Your task to perform on an android device: Go to internet settings Image 0: 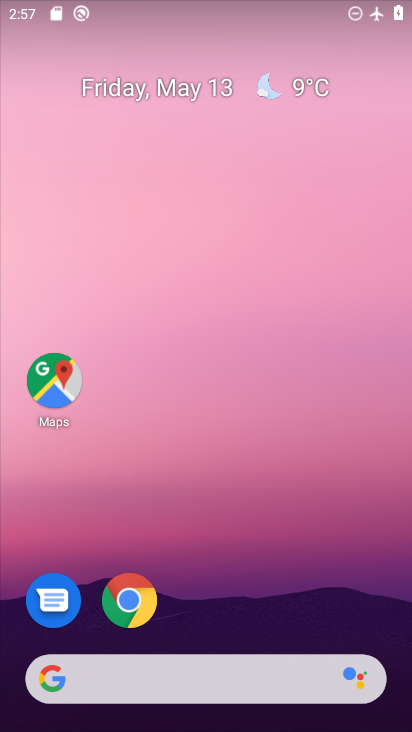
Step 0: drag from (265, 644) to (300, 317)
Your task to perform on an android device: Go to internet settings Image 1: 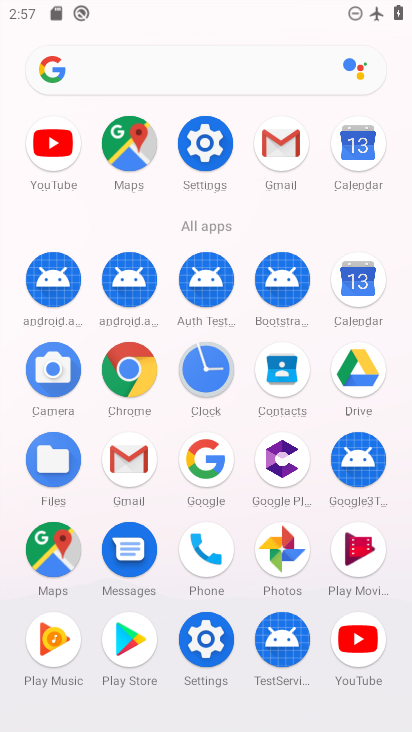
Step 1: drag from (264, 625) to (303, 233)
Your task to perform on an android device: Go to internet settings Image 2: 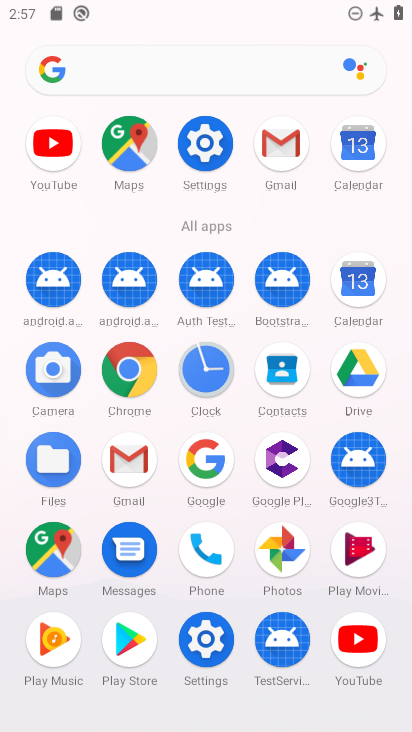
Step 2: click (199, 132)
Your task to perform on an android device: Go to internet settings Image 3: 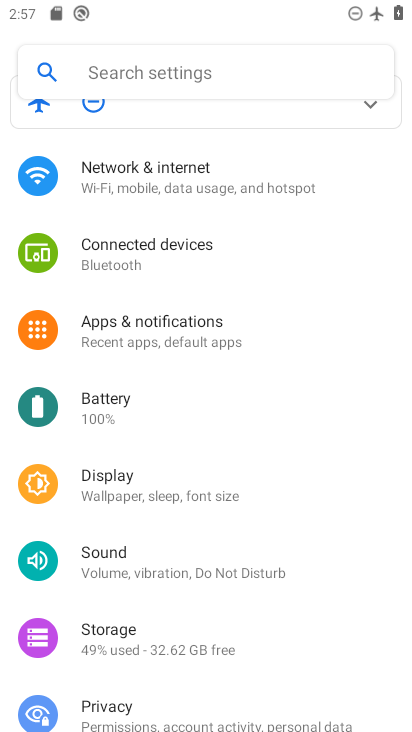
Step 3: click (211, 190)
Your task to perform on an android device: Go to internet settings Image 4: 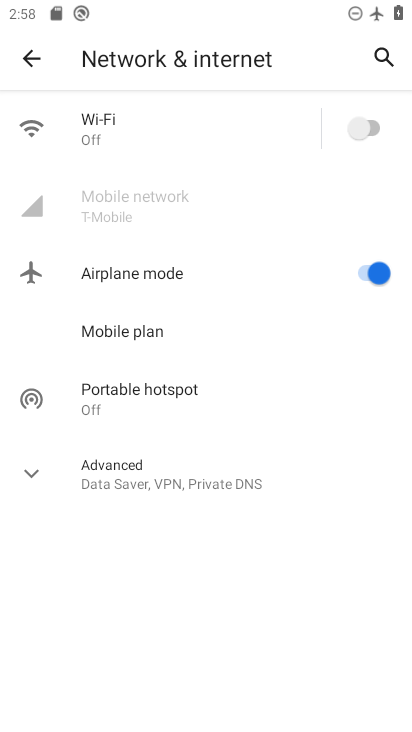
Step 4: click (158, 486)
Your task to perform on an android device: Go to internet settings Image 5: 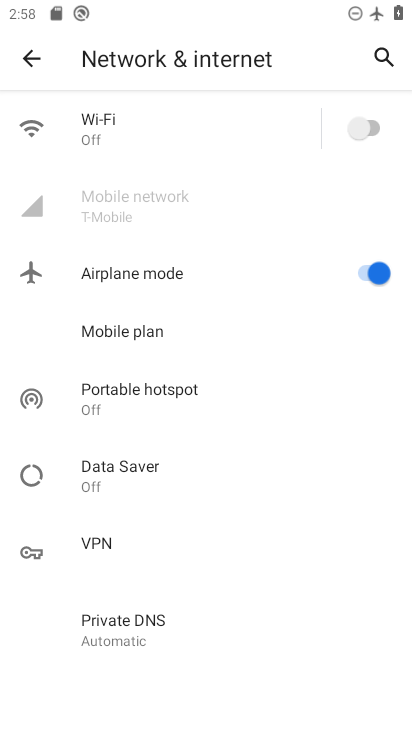
Step 5: task complete